Your task to perform on an android device: toggle sleep mode Image 0: 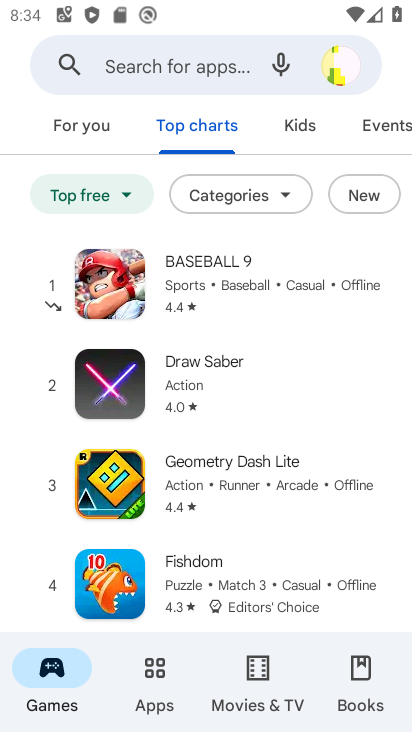
Step 0: drag from (241, 10) to (142, 709)
Your task to perform on an android device: toggle sleep mode Image 1: 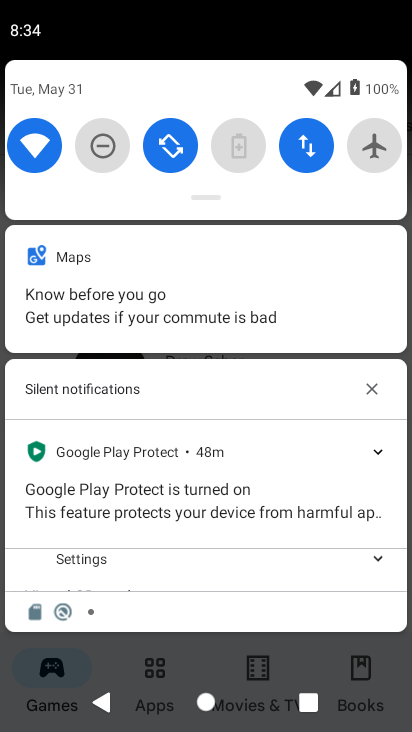
Step 1: drag from (213, 107) to (188, 716)
Your task to perform on an android device: toggle sleep mode Image 2: 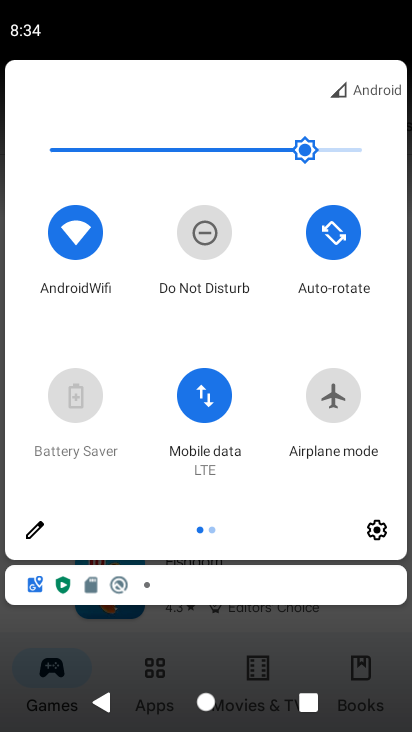
Step 2: click (371, 523)
Your task to perform on an android device: toggle sleep mode Image 3: 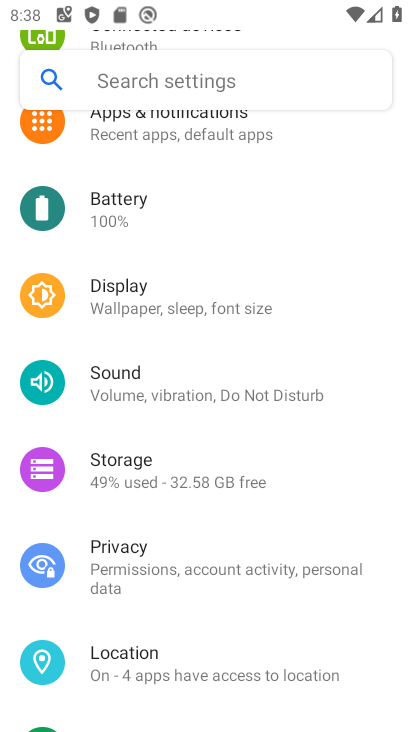
Step 3: task complete